Your task to perform on an android device: What's the weather today? Image 0: 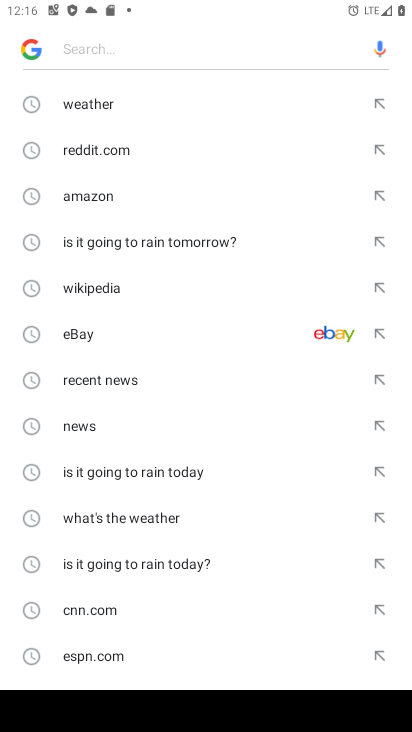
Step 0: press home button
Your task to perform on an android device: What's the weather today? Image 1: 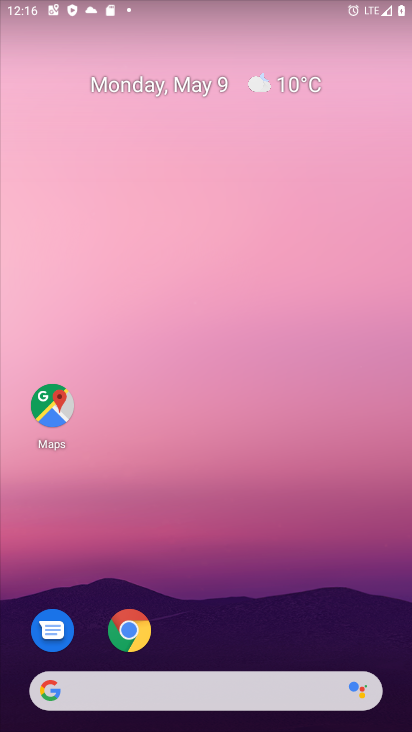
Step 1: click (106, 693)
Your task to perform on an android device: What's the weather today? Image 2: 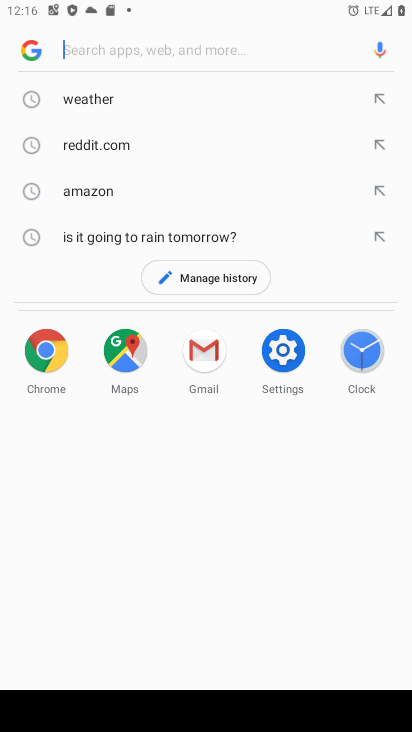
Step 2: click (120, 98)
Your task to perform on an android device: What's the weather today? Image 3: 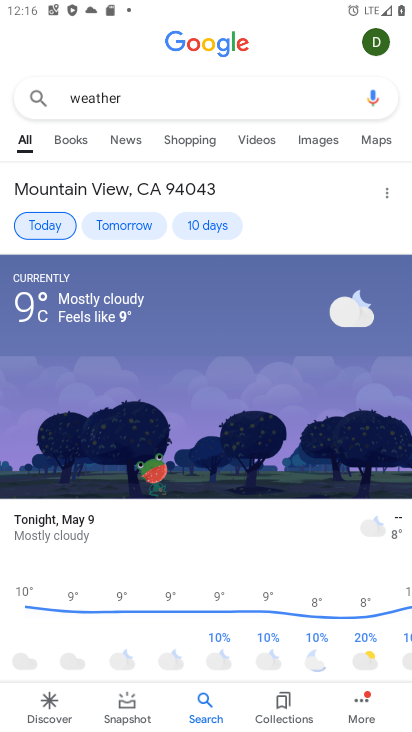
Step 3: task complete